Your task to perform on an android device: See recent photos Image 0: 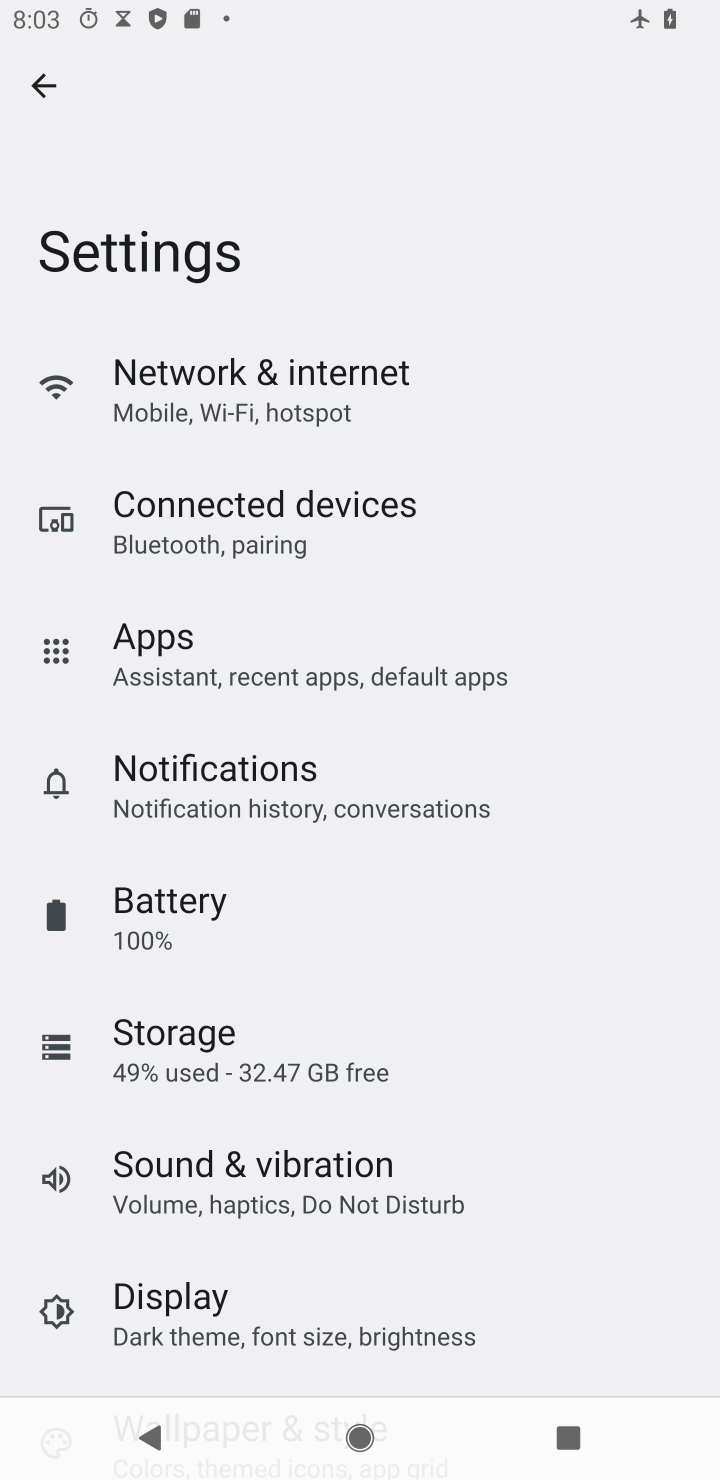
Step 0: press home button
Your task to perform on an android device: See recent photos Image 1: 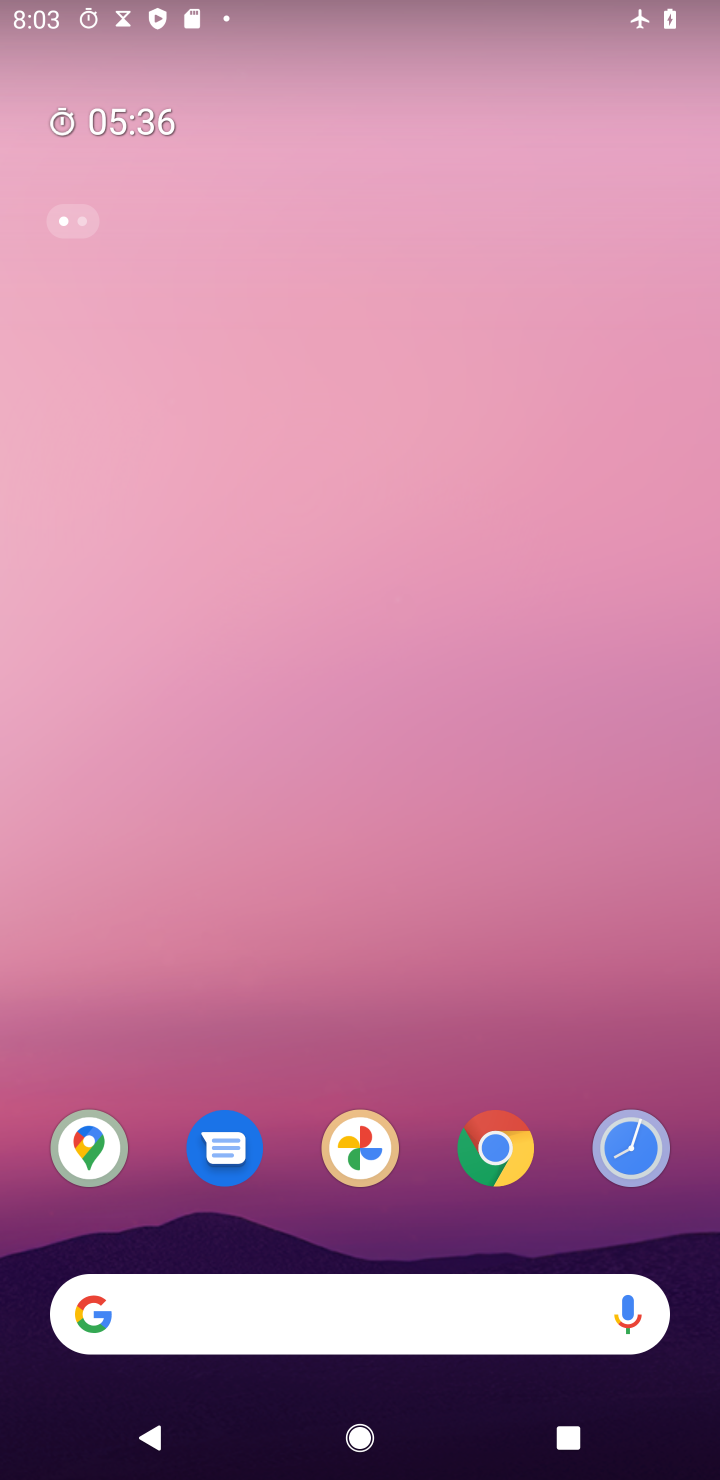
Step 1: click (360, 1150)
Your task to perform on an android device: See recent photos Image 2: 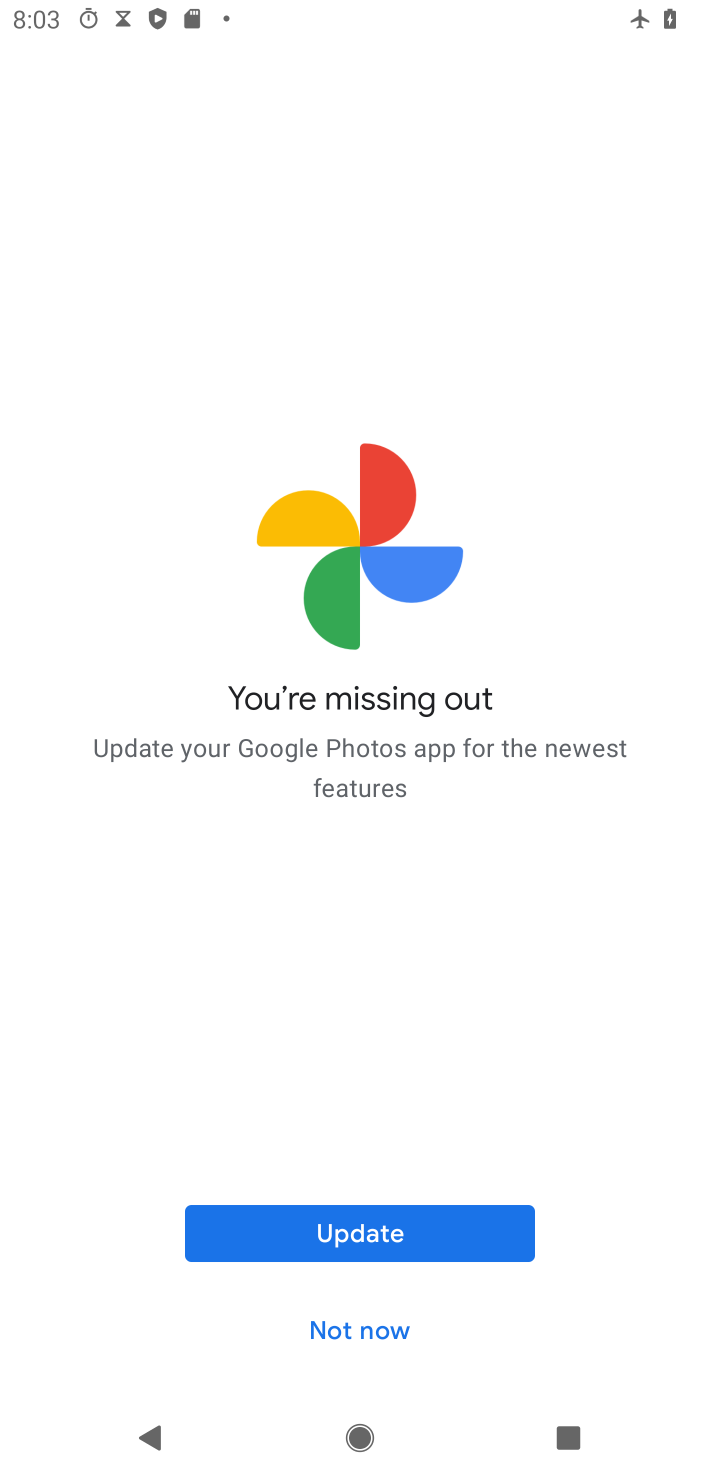
Step 2: click (353, 1245)
Your task to perform on an android device: See recent photos Image 3: 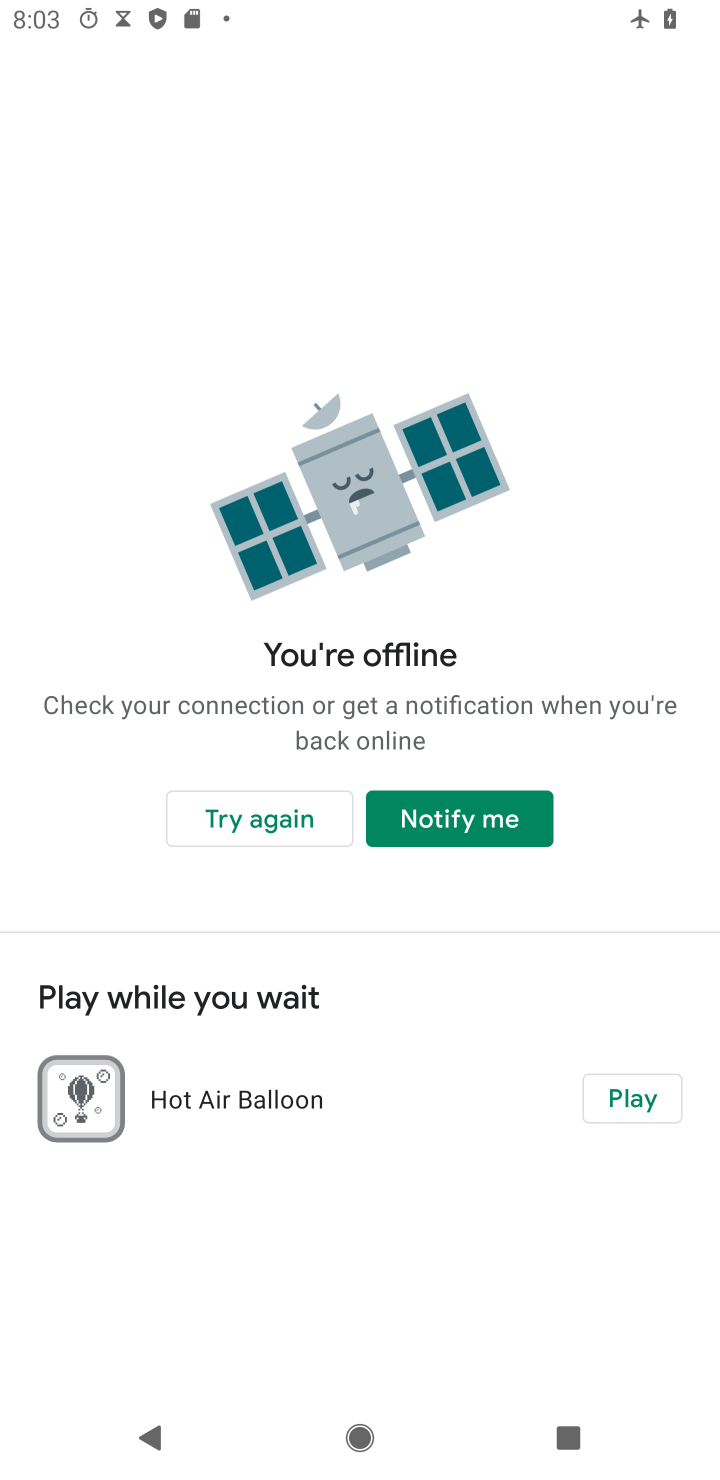
Step 3: task complete